Your task to perform on an android device: Show me popular videos on Youtube Image 0: 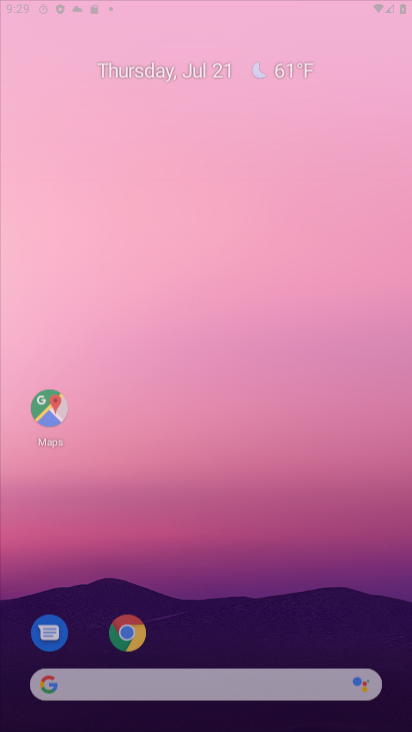
Step 0: click (209, 13)
Your task to perform on an android device: Show me popular videos on Youtube Image 1: 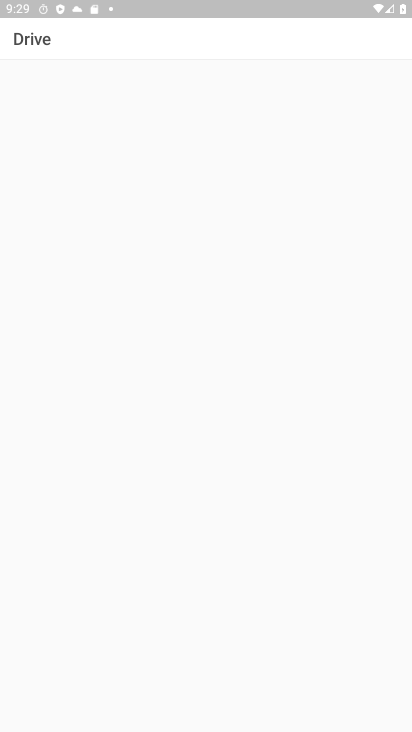
Step 1: drag from (233, 2) to (191, 71)
Your task to perform on an android device: Show me popular videos on Youtube Image 2: 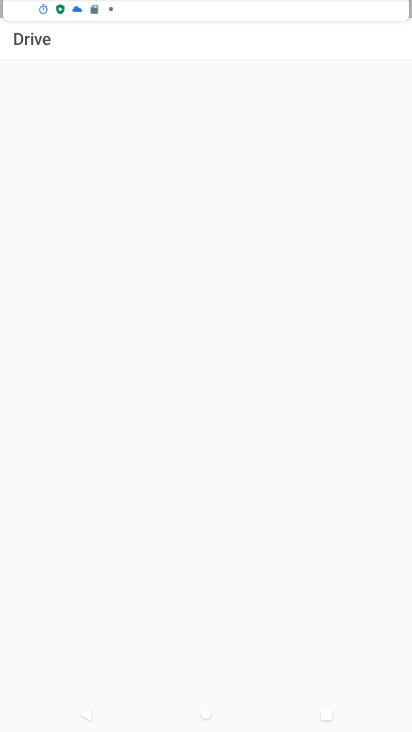
Step 2: drag from (244, 411) to (250, 142)
Your task to perform on an android device: Show me popular videos on Youtube Image 3: 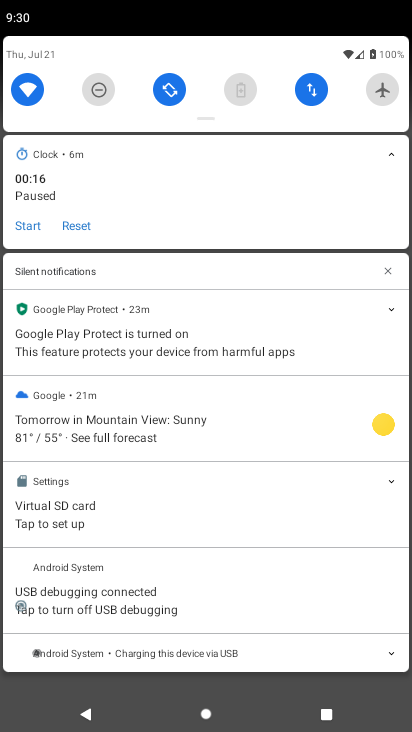
Step 3: drag from (212, 612) to (208, 326)
Your task to perform on an android device: Show me popular videos on Youtube Image 4: 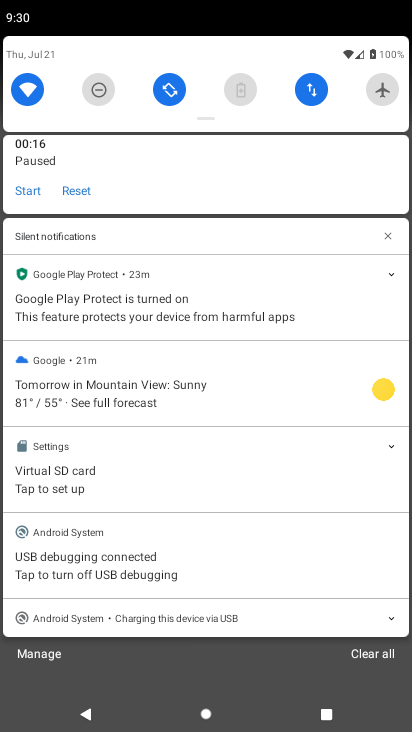
Step 4: press back button
Your task to perform on an android device: Show me popular videos on Youtube Image 5: 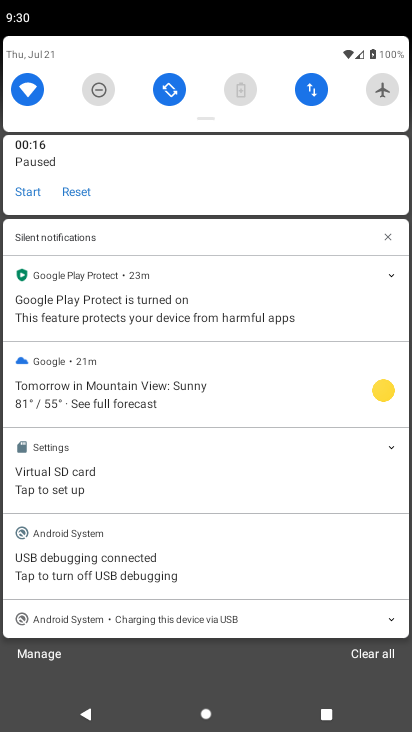
Step 5: press back button
Your task to perform on an android device: Show me popular videos on Youtube Image 6: 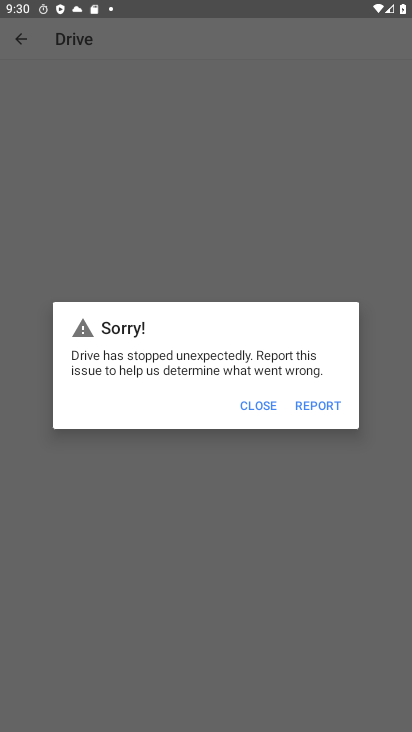
Step 6: click (251, 389)
Your task to perform on an android device: Show me popular videos on Youtube Image 7: 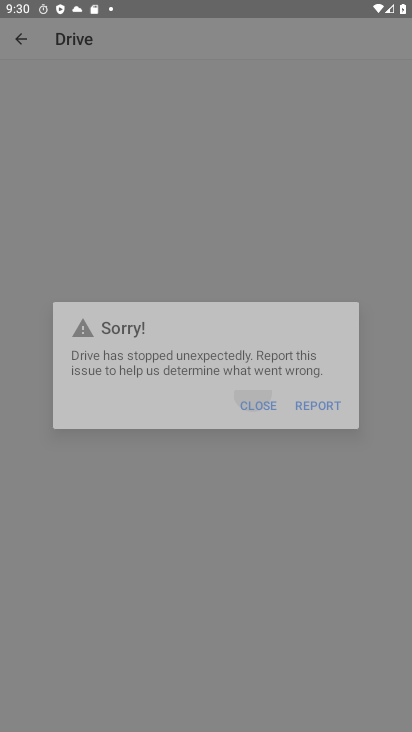
Step 7: click (258, 387)
Your task to perform on an android device: Show me popular videos on Youtube Image 8: 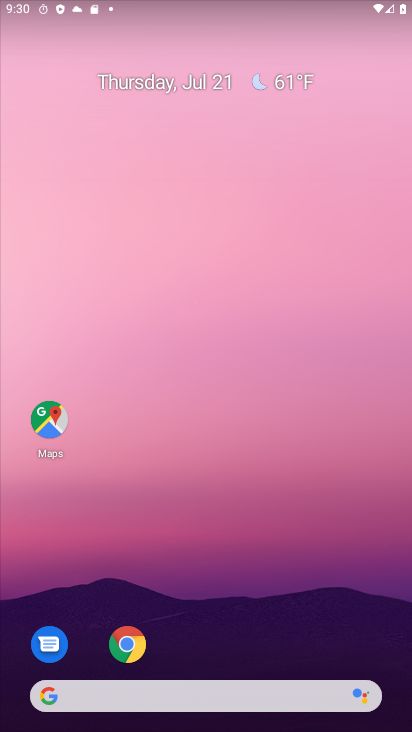
Step 8: drag from (166, 560) to (168, 176)
Your task to perform on an android device: Show me popular videos on Youtube Image 9: 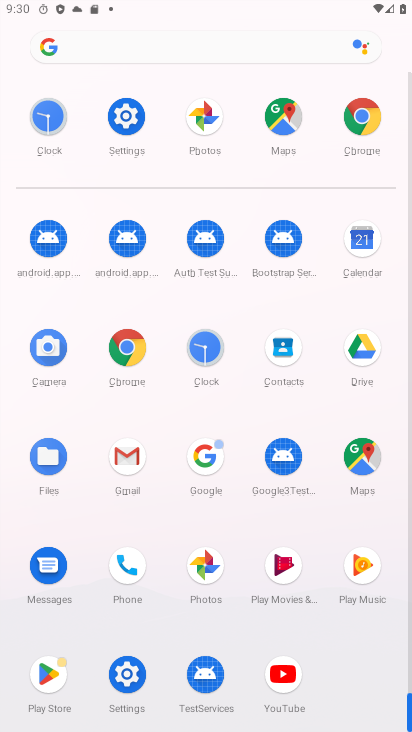
Step 9: click (296, 683)
Your task to perform on an android device: Show me popular videos on Youtube Image 10: 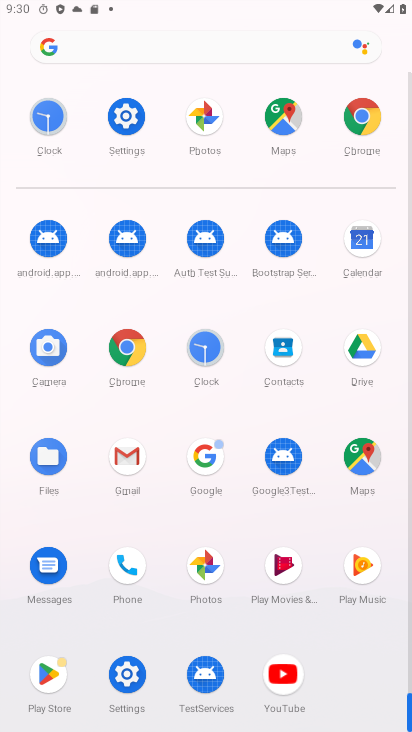
Step 10: click (306, 664)
Your task to perform on an android device: Show me popular videos on Youtube Image 11: 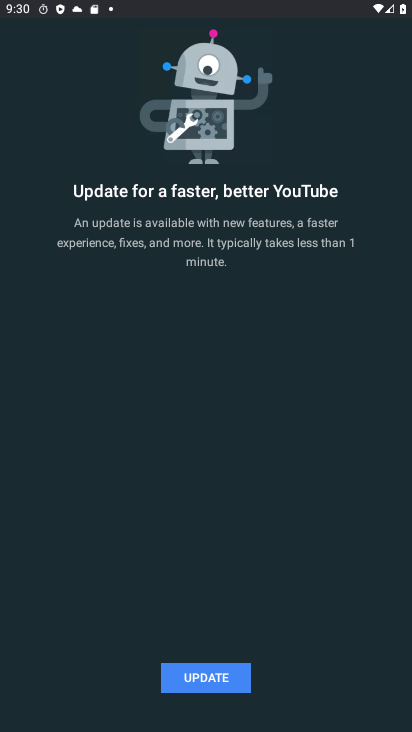
Step 11: click (191, 671)
Your task to perform on an android device: Show me popular videos on Youtube Image 12: 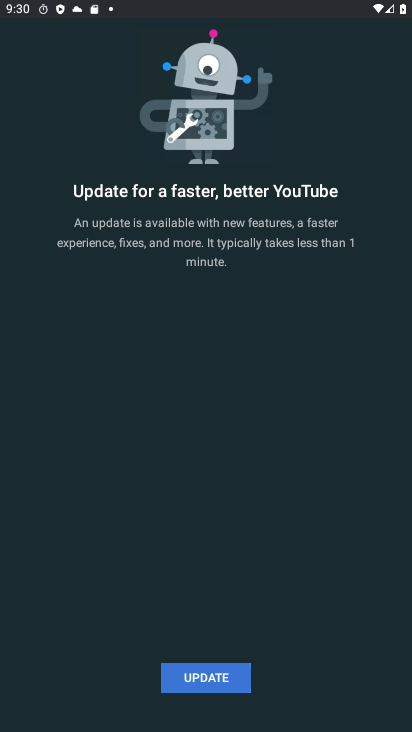
Step 12: click (191, 667)
Your task to perform on an android device: Show me popular videos on Youtube Image 13: 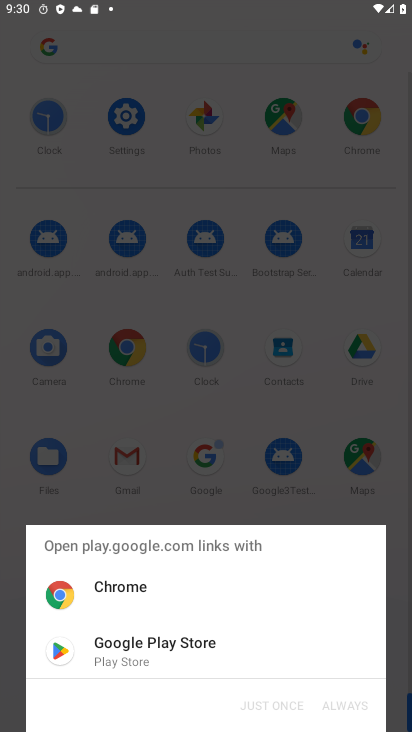
Step 13: click (159, 637)
Your task to perform on an android device: Show me popular videos on Youtube Image 14: 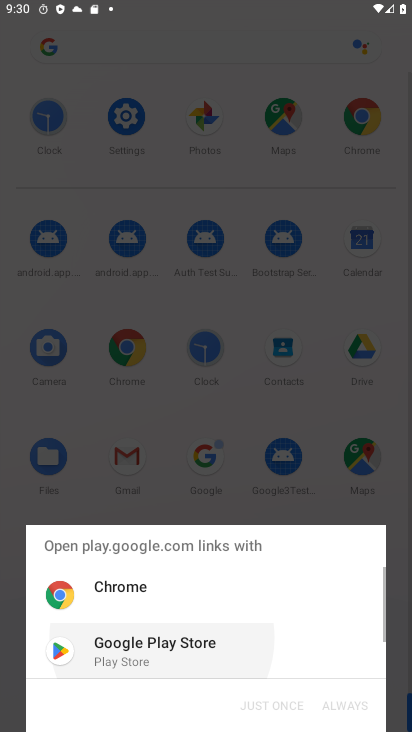
Step 14: click (159, 637)
Your task to perform on an android device: Show me popular videos on Youtube Image 15: 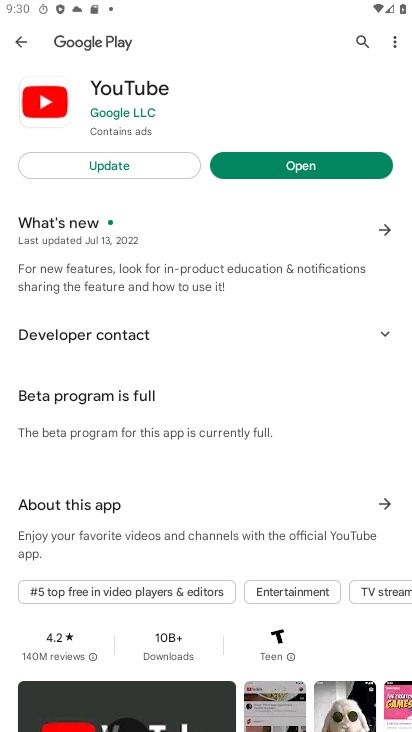
Step 15: click (142, 164)
Your task to perform on an android device: Show me popular videos on Youtube Image 16: 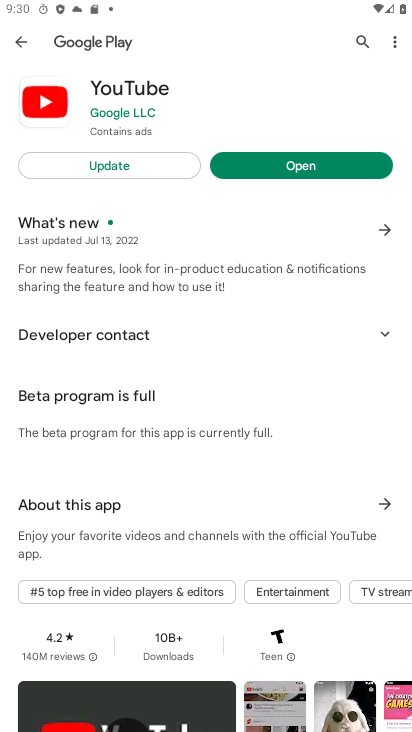
Step 16: click (142, 164)
Your task to perform on an android device: Show me popular videos on Youtube Image 17: 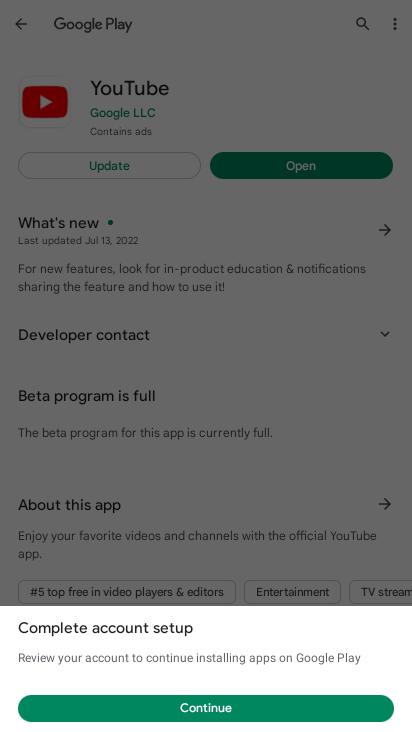
Step 17: click (305, 172)
Your task to perform on an android device: Show me popular videos on Youtube Image 18: 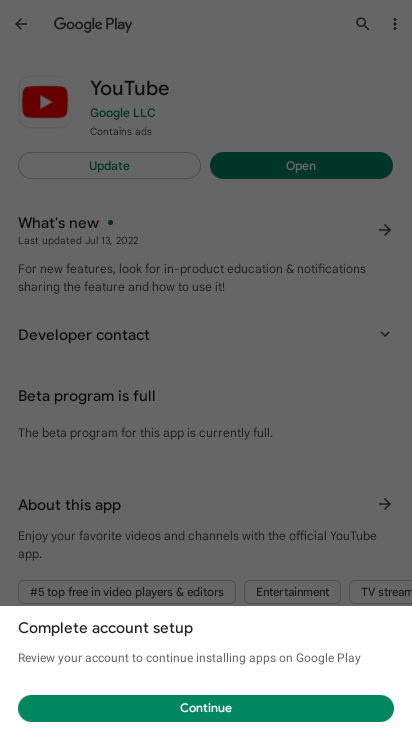
Step 18: click (306, 171)
Your task to perform on an android device: Show me popular videos on Youtube Image 19: 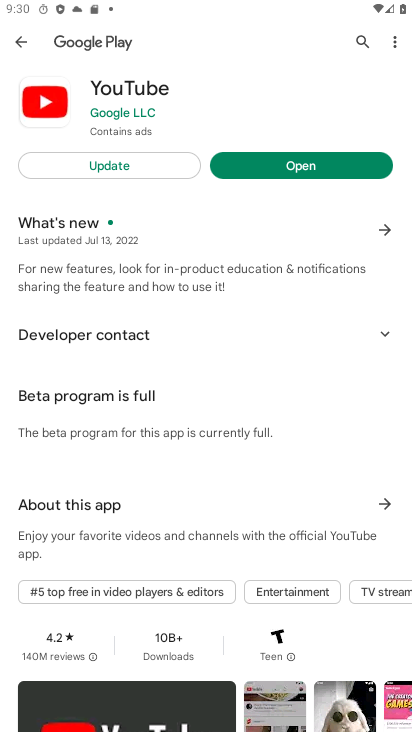
Step 19: click (307, 171)
Your task to perform on an android device: Show me popular videos on Youtube Image 20: 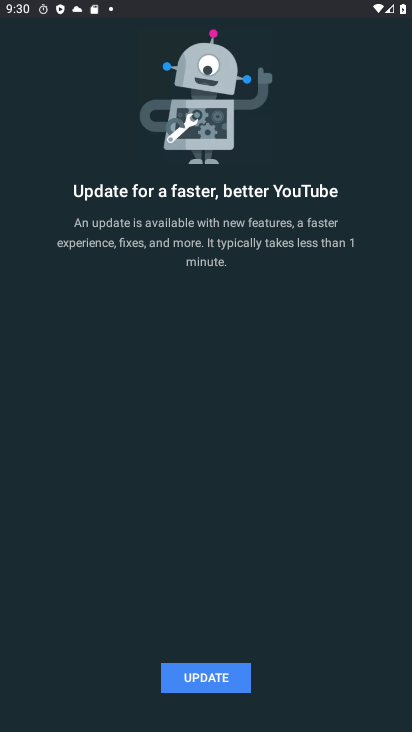
Step 20: click (221, 681)
Your task to perform on an android device: Show me popular videos on Youtube Image 21: 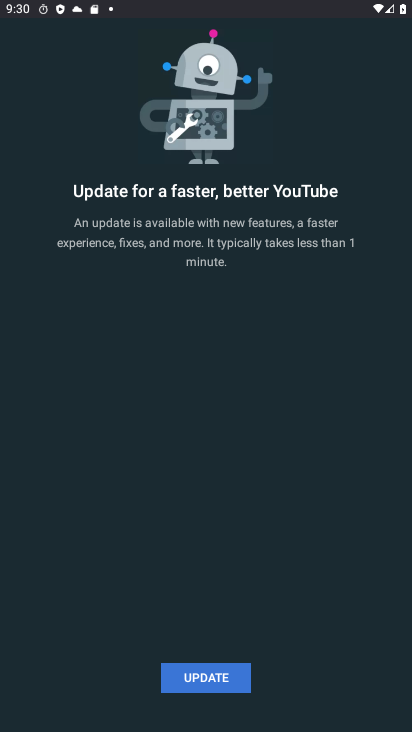
Step 21: click (221, 682)
Your task to perform on an android device: Show me popular videos on Youtube Image 22: 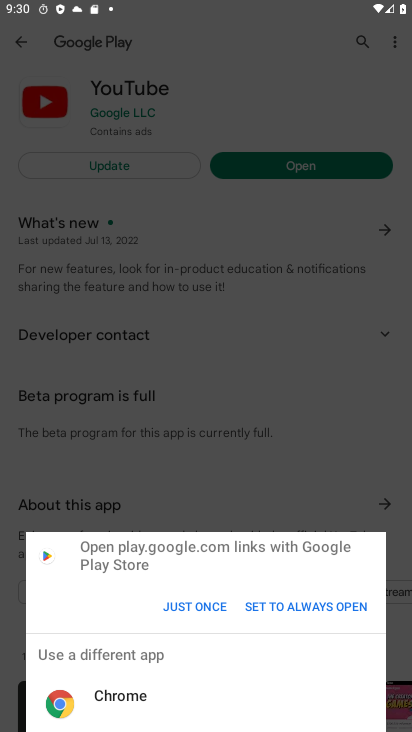
Step 22: click (131, 683)
Your task to perform on an android device: Show me popular videos on Youtube Image 23: 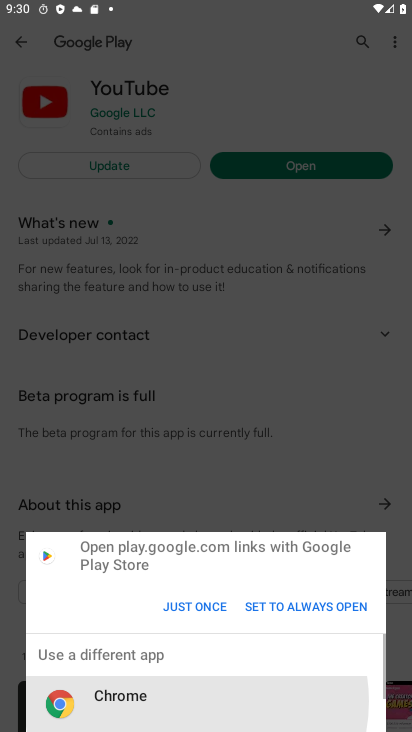
Step 23: click (130, 694)
Your task to perform on an android device: Show me popular videos on Youtube Image 24: 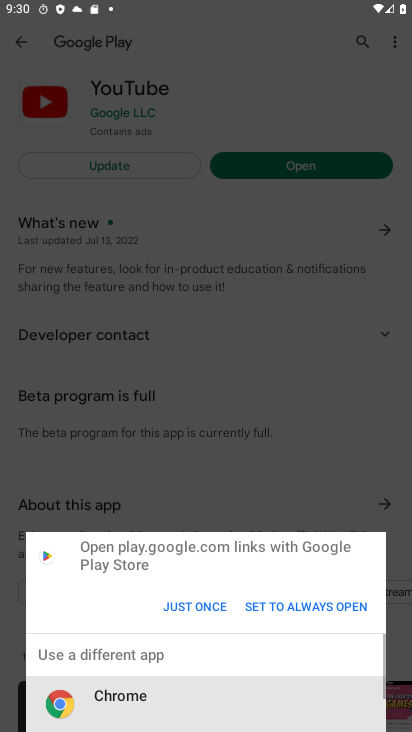
Step 24: click (130, 694)
Your task to perform on an android device: Show me popular videos on Youtube Image 25: 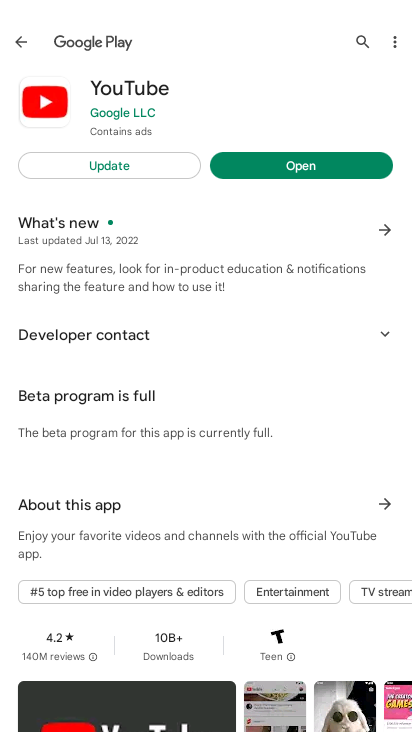
Step 25: click (130, 694)
Your task to perform on an android device: Show me popular videos on Youtube Image 26: 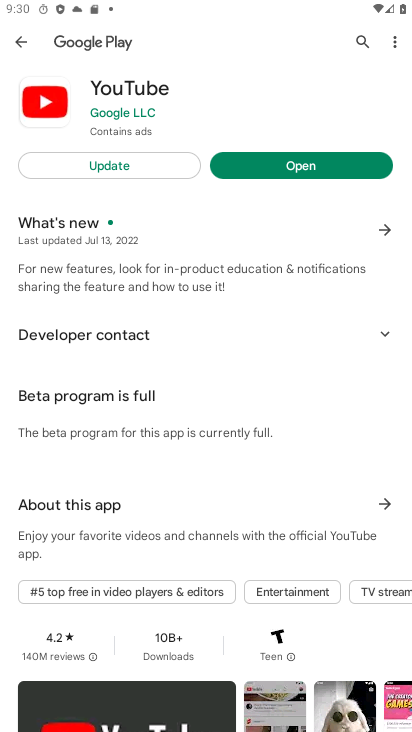
Step 26: click (328, 165)
Your task to perform on an android device: Show me popular videos on Youtube Image 27: 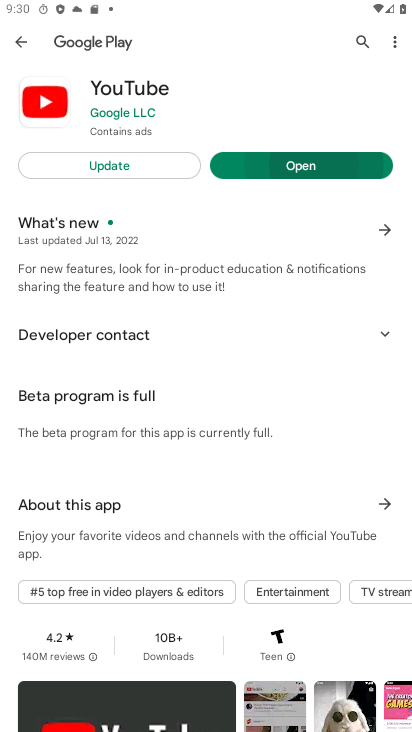
Step 27: click (328, 165)
Your task to perform on an android device: Show me popular videos on Youtube Image 28: 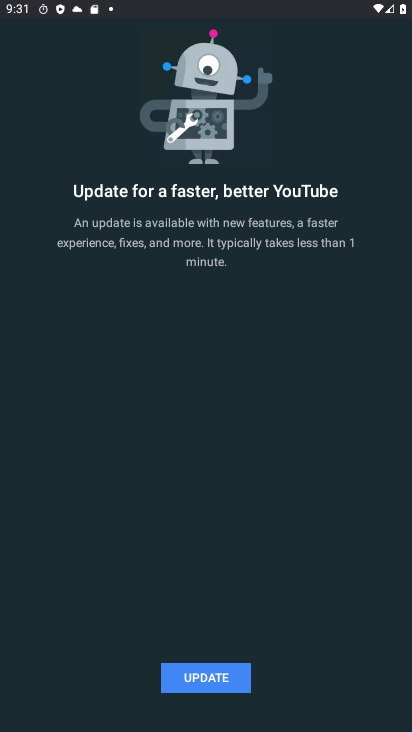
Step 28: task complete